Your task to perform on an android device: What's the weather? Image 0: 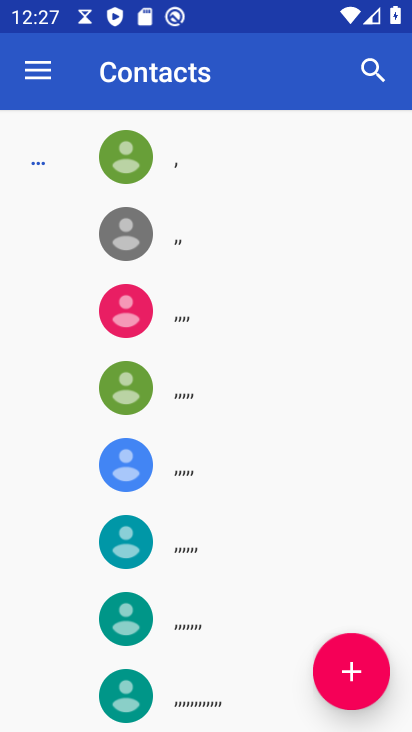
Step 0: press home button
Your task to perform on an android device: What's the weather? Image 1: 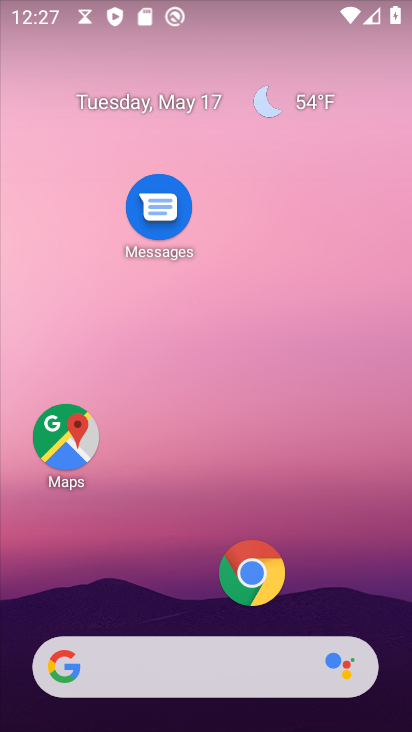
Step 1: drag from (202, 608) to (206, 111)
Your task to perform on an android device: What's the weather? Image 2: 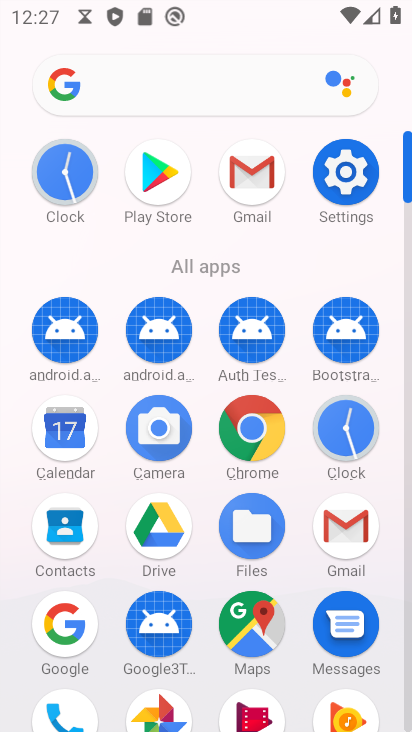
Step 2: press back button
Your task to perform on an android device: What's the weather? Image 3: 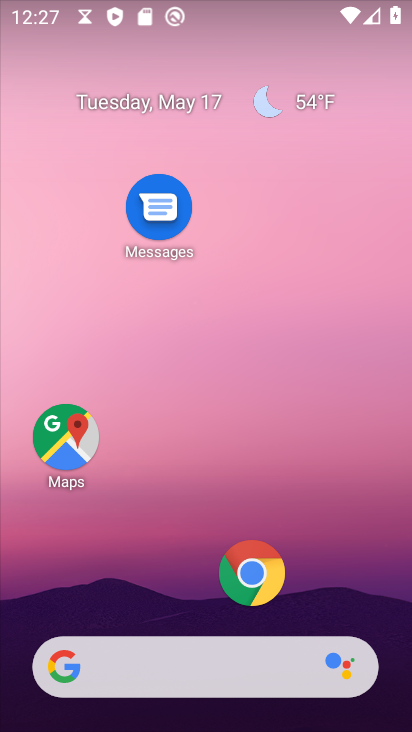
Step 3: click (305, 97)
Your task to perform on an android device: What's the weather? Image 4: 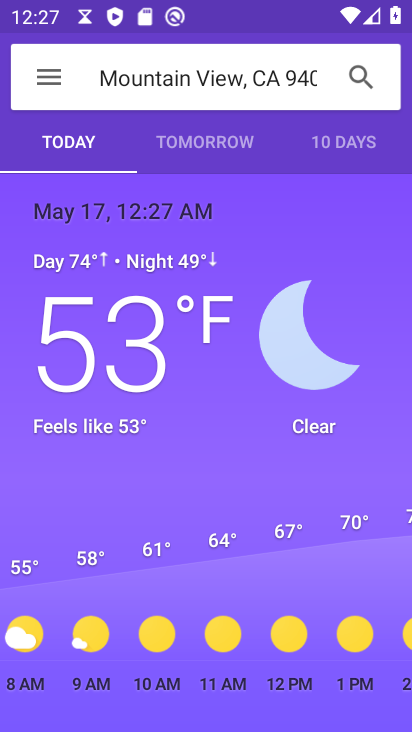
Step 4: task complete